Your task to perform on an android device: Open ESPN.com Image 0: 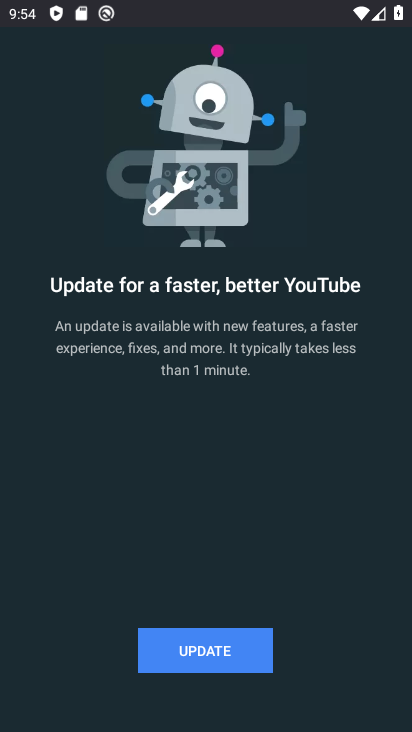
Step 0: press home button
Your task to perform on an android device: Open ESPN.com Image 1: 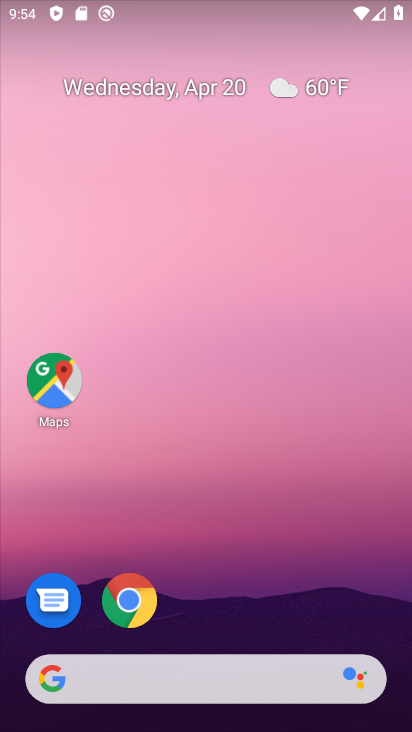
Step 1: click (136, 599)
Your task to perform on an android device: Open ESPN.com Image 2: 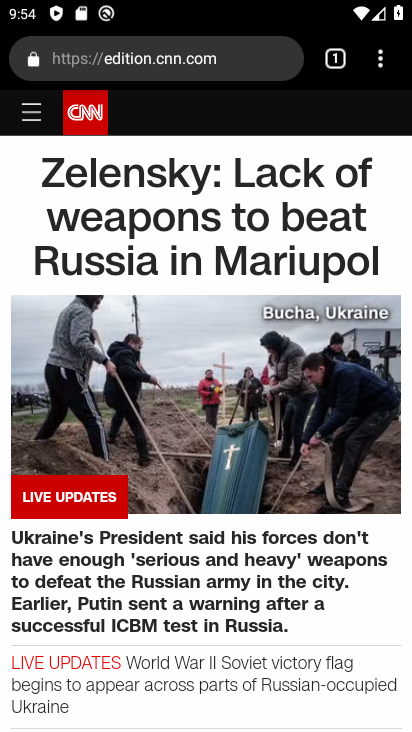
Step 2: click (372, 59)
Your task to perform on an android device: Open ESPN.com Image 3: 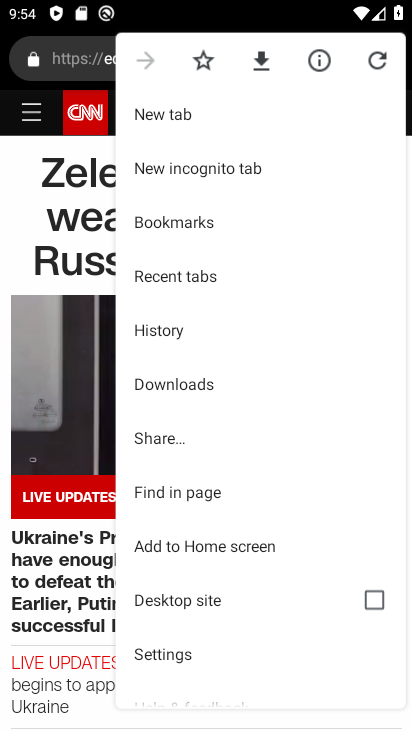
Step 3: click (183, 114)
Your task to perform on an android device: Open ESPN.com Image 4: 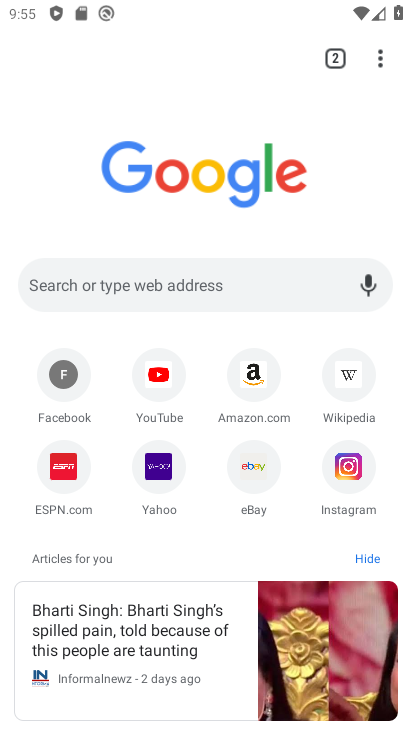
Step 4: click (63, 470)
Your task to perform on an android device: Open ESPN.com Image 5: 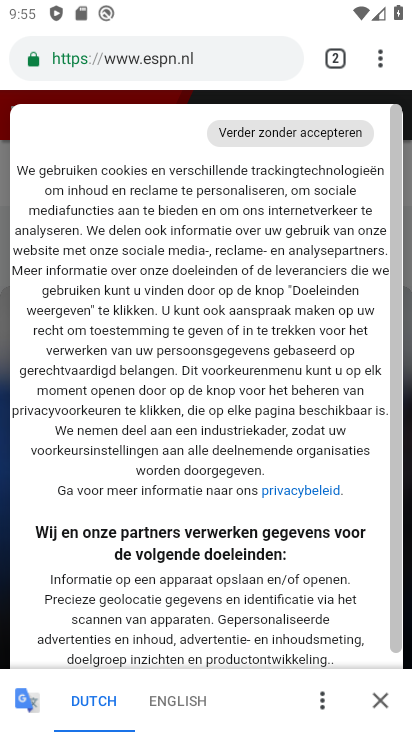
Step 5: task complete